Your task to perform on an android device: snooze an email in the gmail app Image 0: 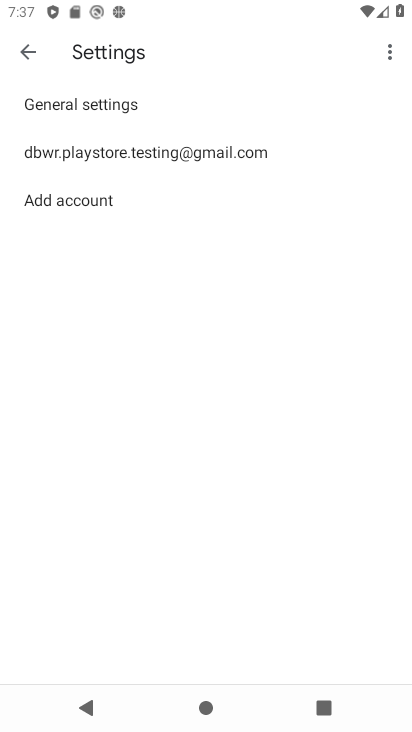
Step 0: press home button
Your task to perform on an android device: snooze an email in the gmail app Image 1: 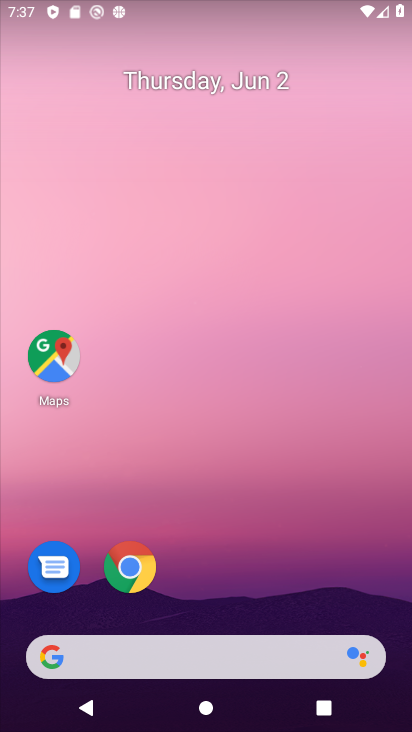
Step 1: drag from (351, 583) to (367, 223)
Your task to perform on an android device: snooze an email in the gmail app Image 2: 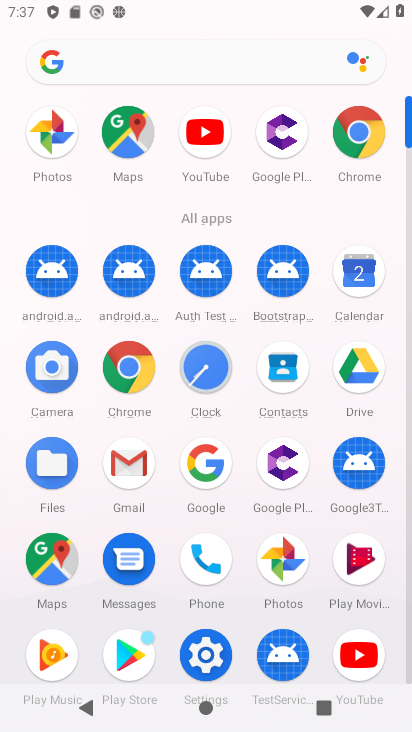
Step 2: click (127, 474)
Your task to perform on an android device: snooze an email in the gmail app Image 3: 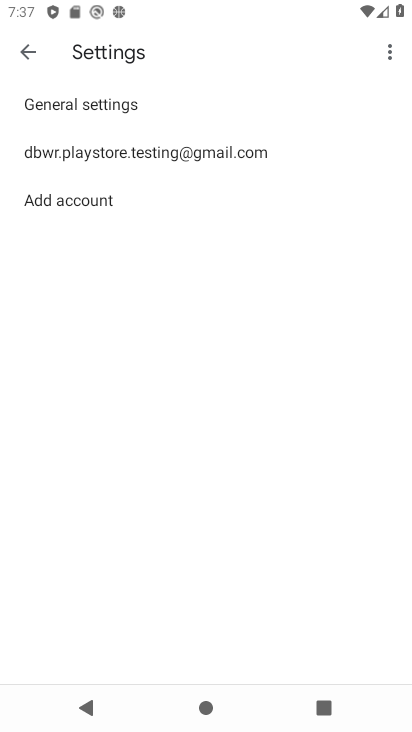
Step 3: press back button
Your task to perform on an android device: snooze an email in the gmail app Image 4: 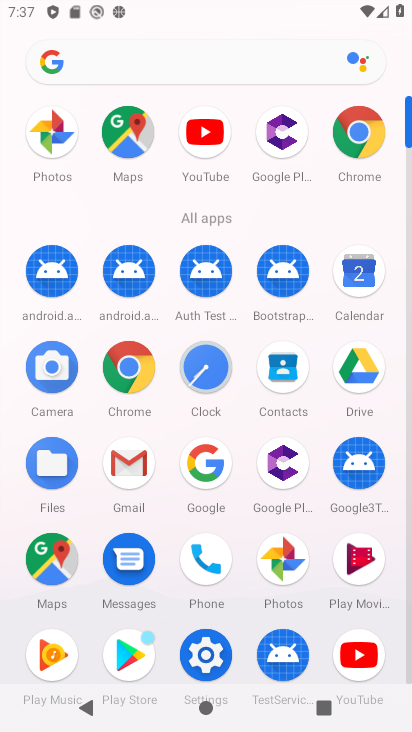
Step 4: click (143, 474)
Your task to perform on an android device: snooze an email in the gmail app Image 5: 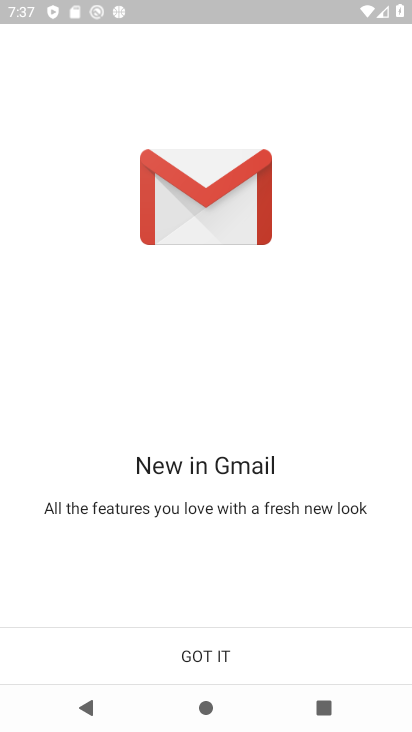
Step 5: click (227, 662)
Your task to perform on an android device: snooze an email in the gmail app Image 6: 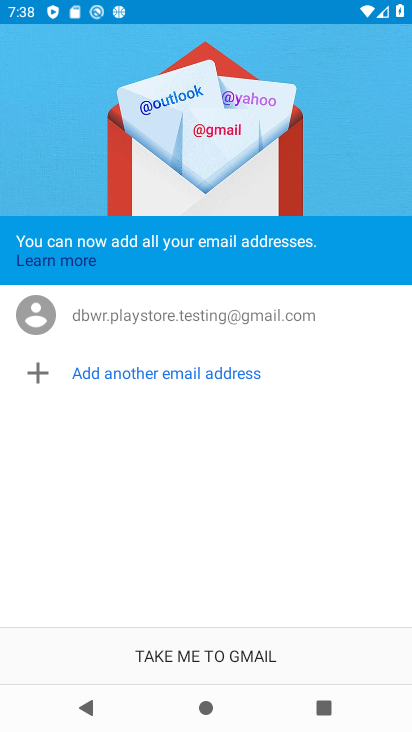
Step 6: click (231, 660)
Your task to perform on an android device: snooze an email in the gmail app Image 7: 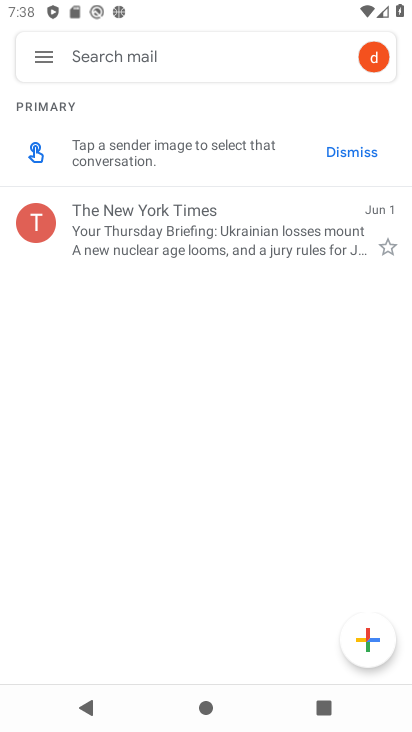
Step 7: click (39, 54)
Your task to perform on an android device: snooze an email in the gmail app Image 8: 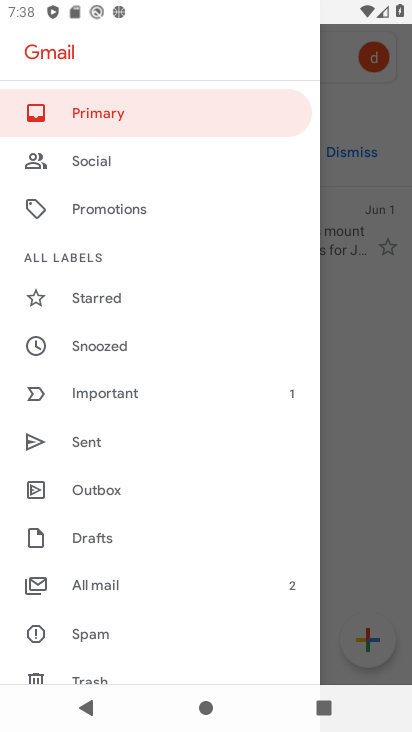
Step 8: drag from (224, 516) to (234, 367)
Your task to perform on an android device: snooze an email in the gmail app Image 9: 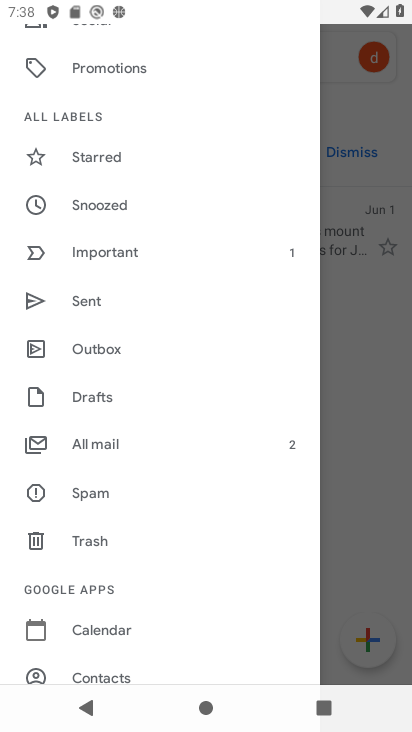
Step 9: click (127, 205)
Your task to perform on an android device: snooze an email in the gmail app Image 10: 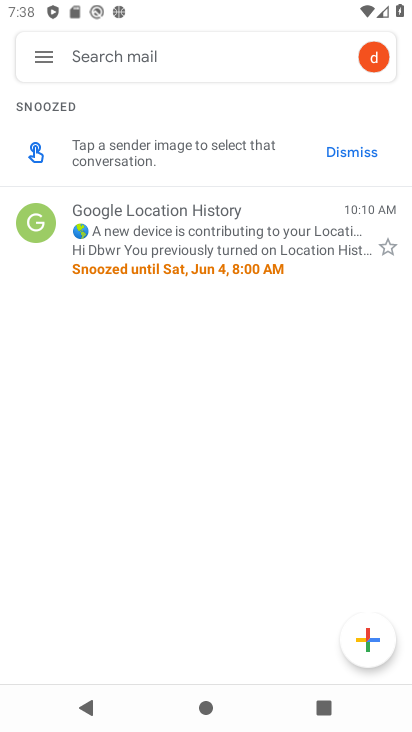
Step 10: task complete